Your task to perform on an android device: Open Google Chrome and open the bookmarks view Image 0: 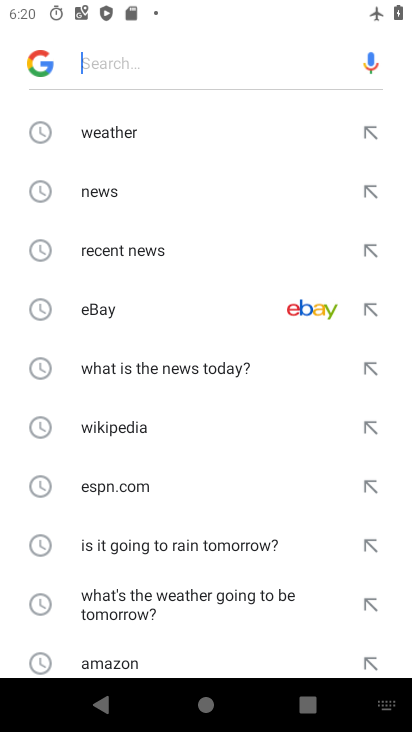
Step 0: press home button
Your task to perform on an android device: Open Google Chrome and open the bookmarks view Image 1: 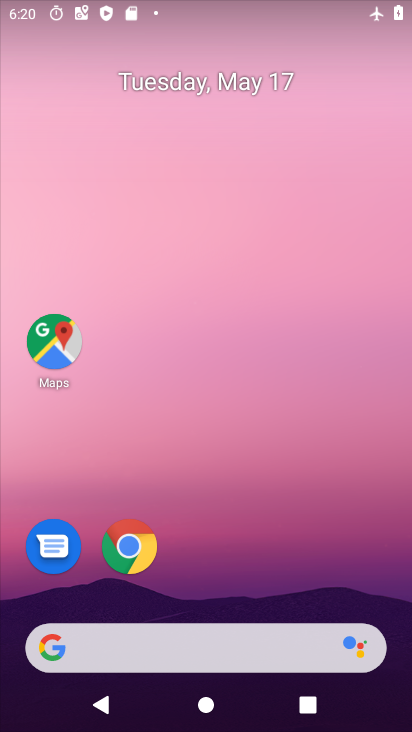
Step 1: click (133, 549)
Your task to perform on an android device: Open Google Chrome and open the bookmarks view Image 2: 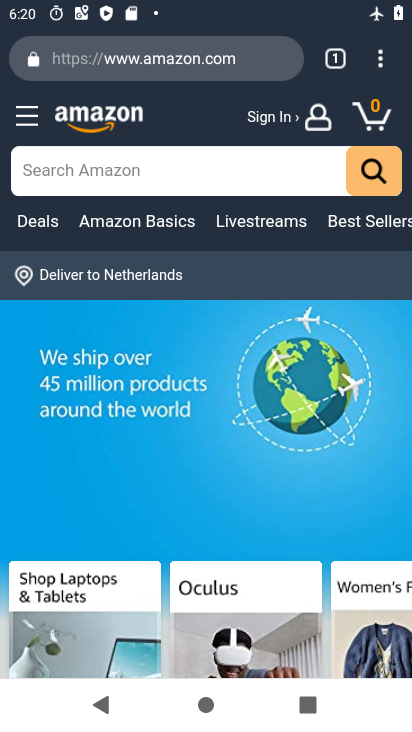
Step 2: click (384, 71)
Your task to perform on an android device: Open Google Chrome and open the bookmarks view Image 3: 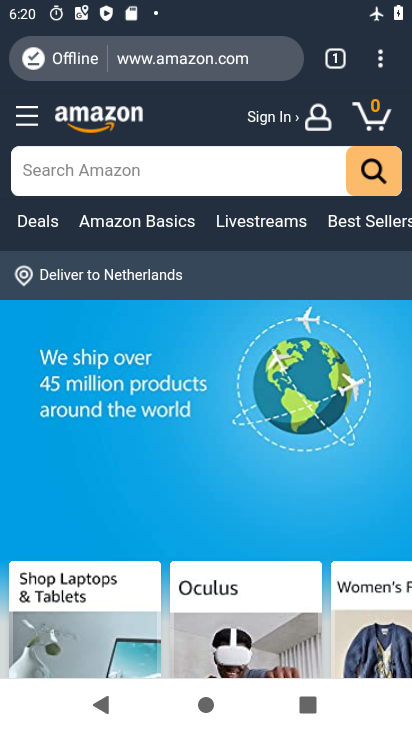
Step 3: click (383, 70)
Your task to perform on an android device: Open Google Chrome and open the bookmarks view Image 4: 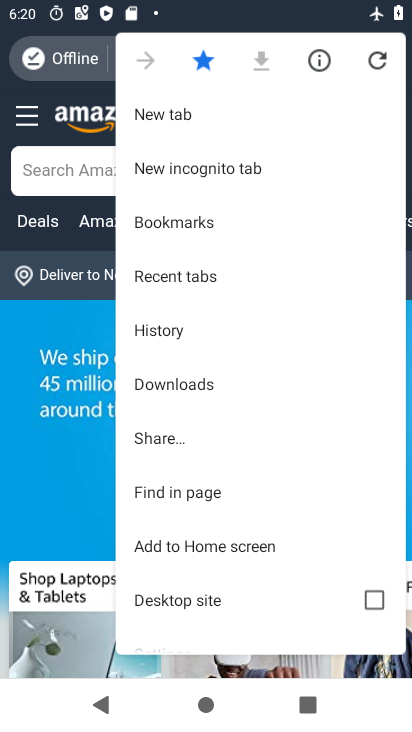
Step 4: click (188, 221)
Your task to perform on an android device: Open Google Chrome and open the bookmarks view Image 5: 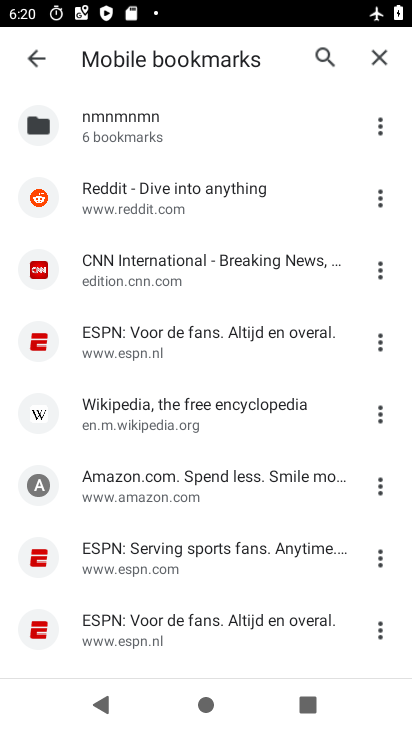
Step 5: task complete